Your task to perform on an android device: turn on the 12-hour format for clock Image 0: 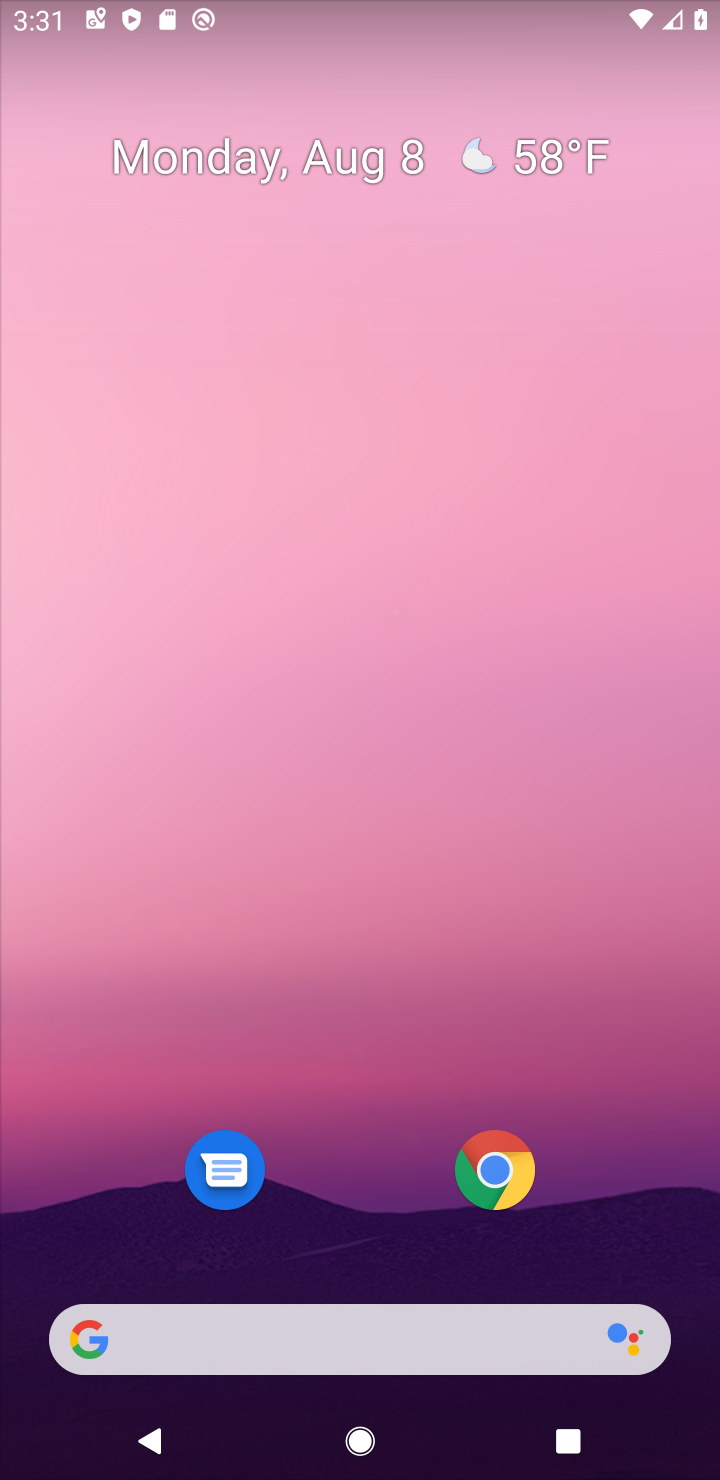
Step 0: drag from (373, 953) to (373, 357)
Your task to perform on an android device: turn on the 12-hour format for clock Image 1: 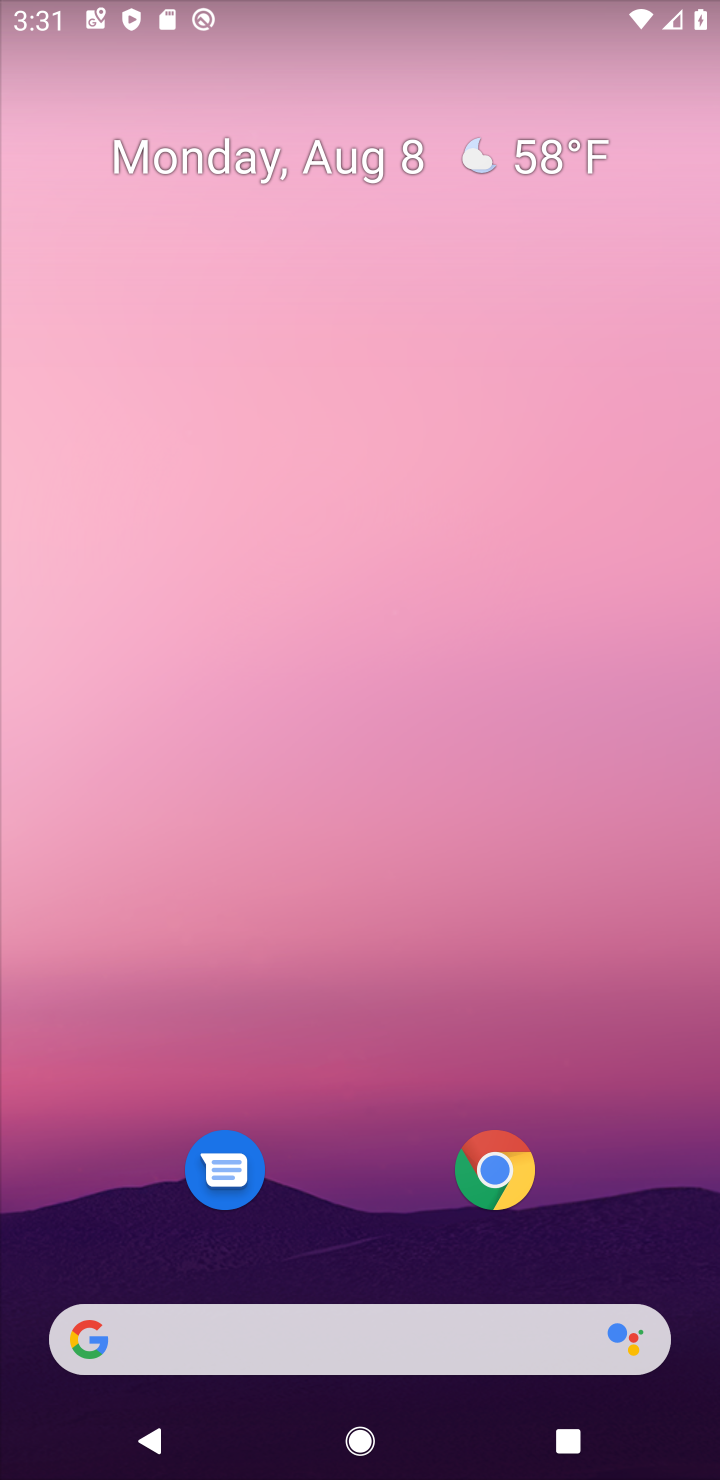
Step 1: drag from (319, 1197) to (416, 347)
Your task to perform on an android device: turn on the 12-hour format for clock Image 2: 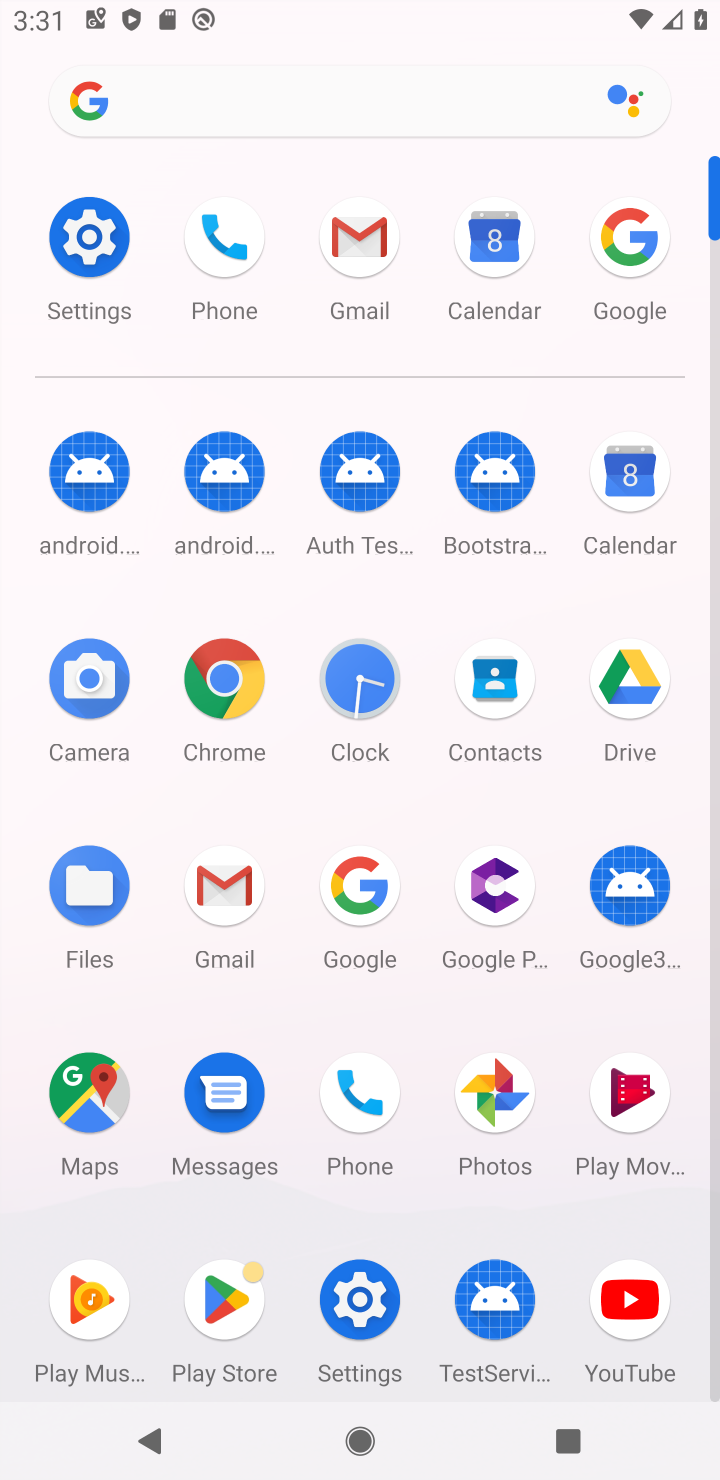
Step 2: click (376, 693)
Your task to perform on an android device: turn on the 12-hour format for clock Image 3: 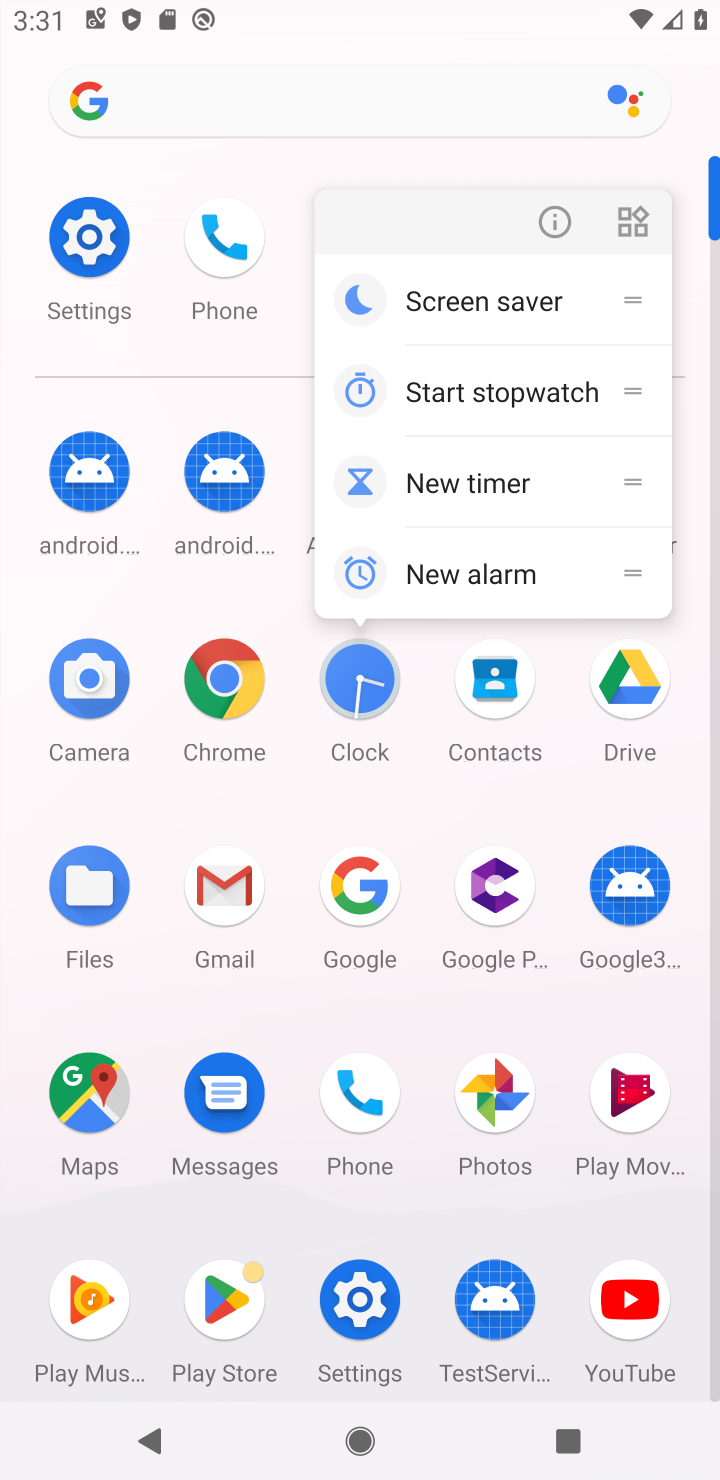
Step 3: click (352, 712)
Your task to perform on an android device: turn on the 12-hour format for clock Image 4: 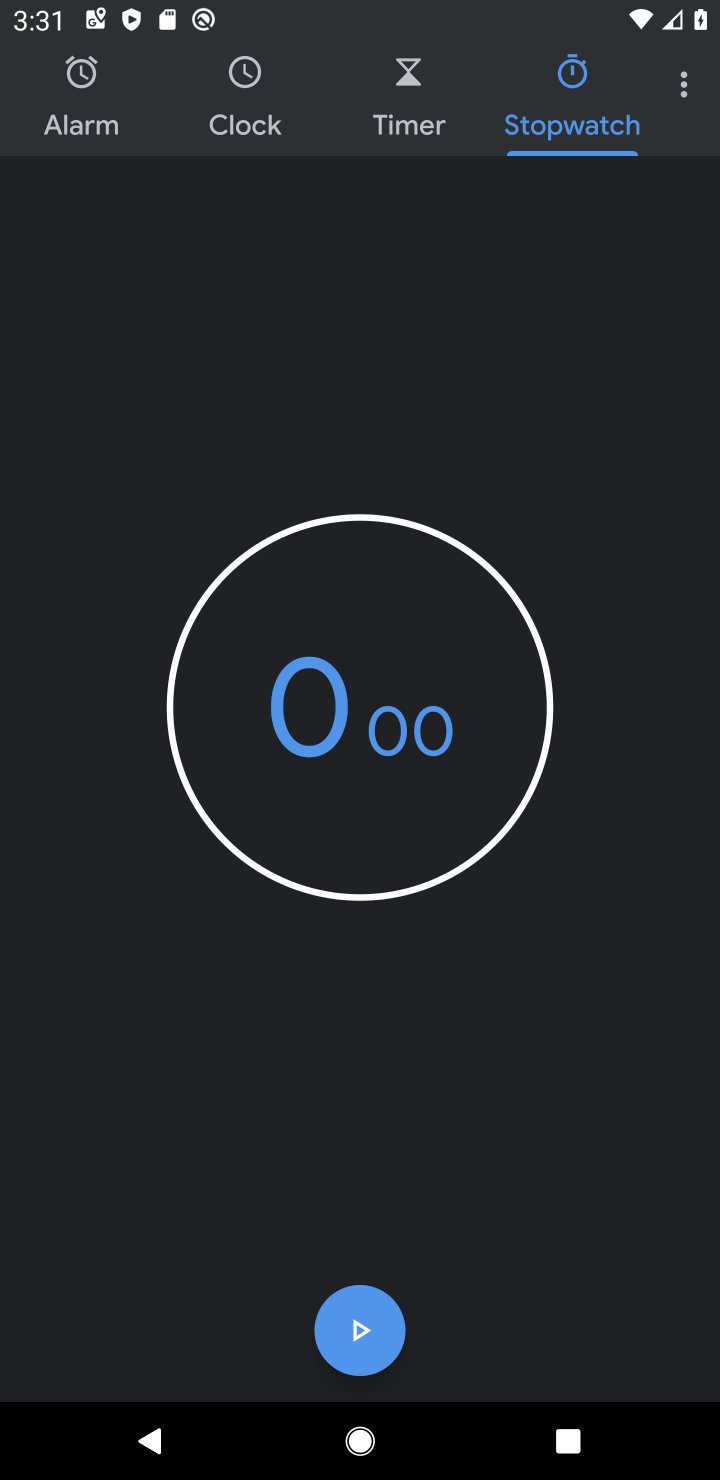
Step 4: click (697, 91)
Your task to perform on an android device: turn on the 12-hour format for clock Image 5: 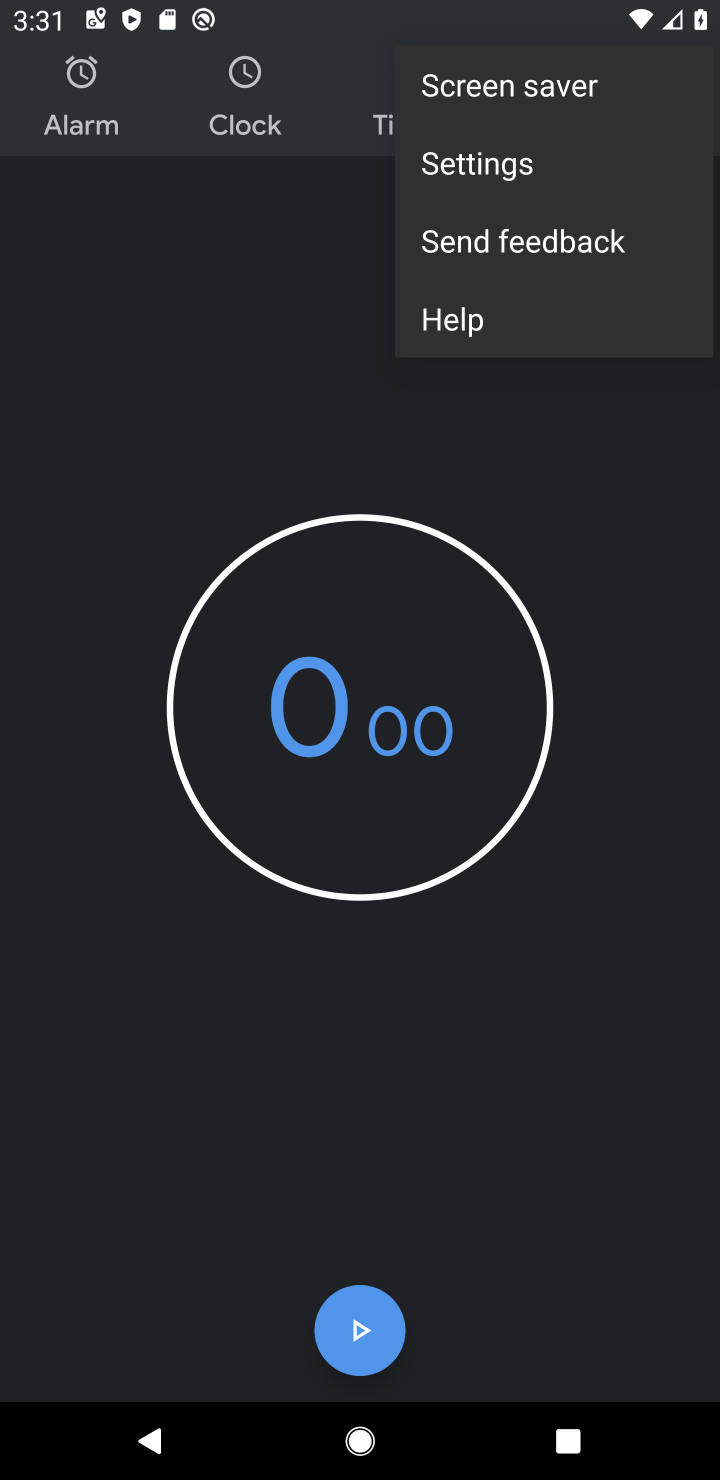
Step 5: click (559, 187)
Your task to perform on an android device: turn on the 12-hour format for clock Image 6: 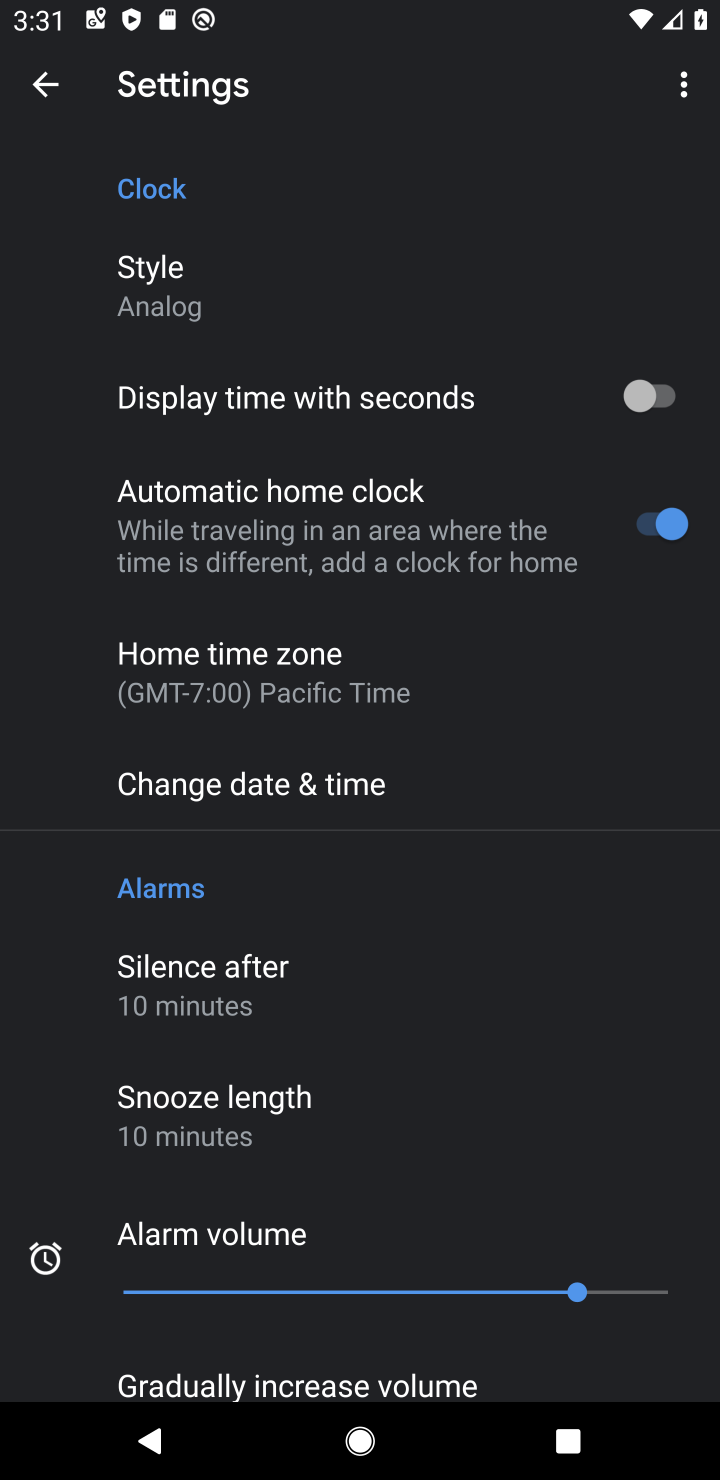
Step 6: click (317, 801)
Your task to perform on an android device: turn on the 12-hour format for clock Image 7: 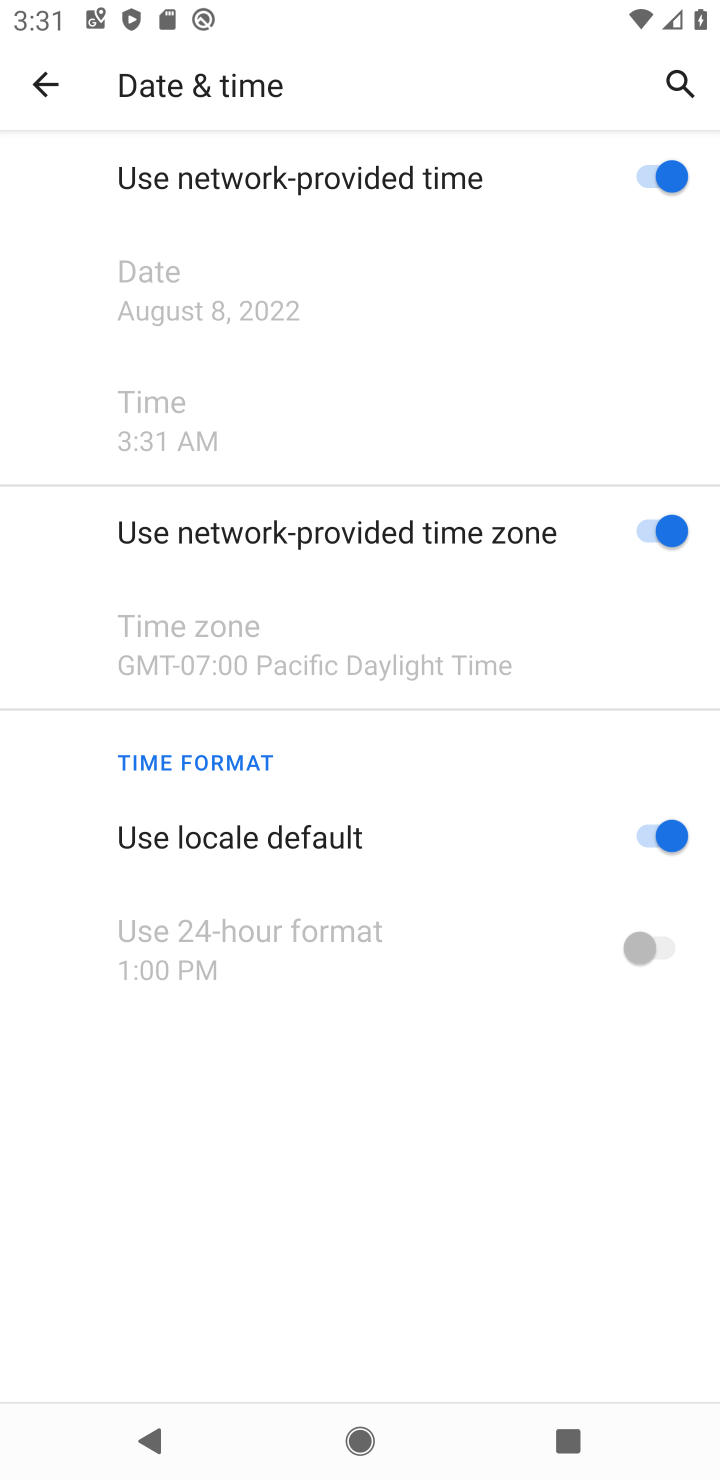
Step 7: task complete